Your task to perform on an android device: snooze an email in the gmail app Image 0: 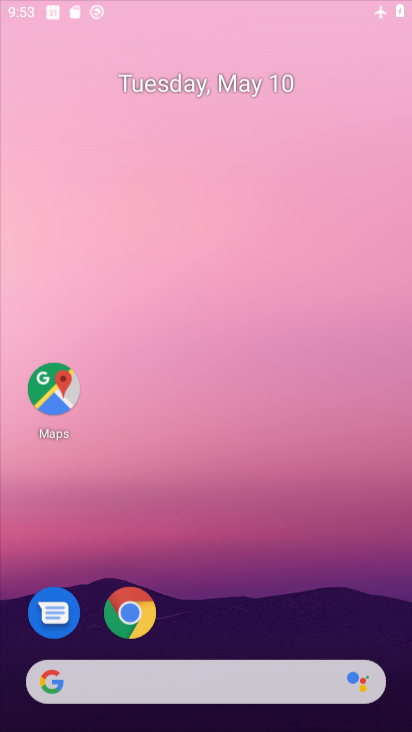
Step 0: click (246, 188)
Your task to perform on an android device: snooze an email in the gmail app Image 1: 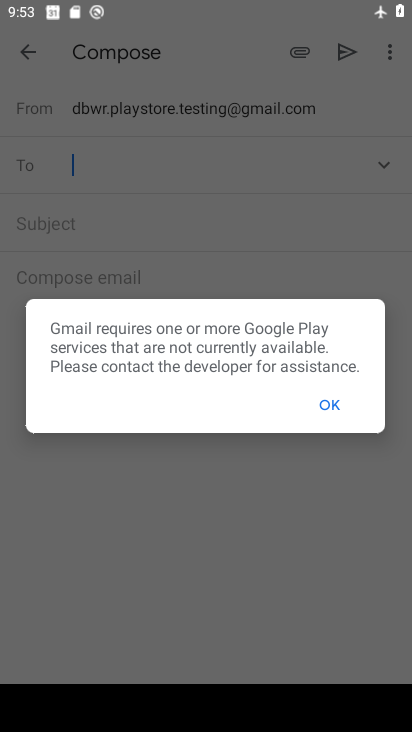
Step 1: press home button
Your task to perform on an android device: snooze an email in the gmail app Image 2: 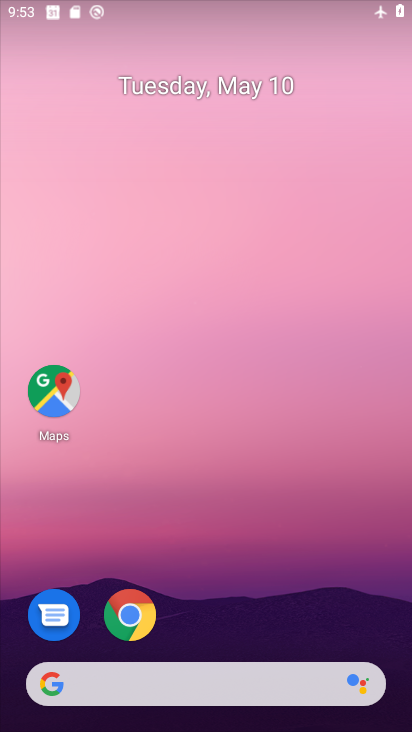
Step 2: drag from (163, 642) to (250, 131)
Your task to perform on an android device: snooze an email in the gmail app Image 3: 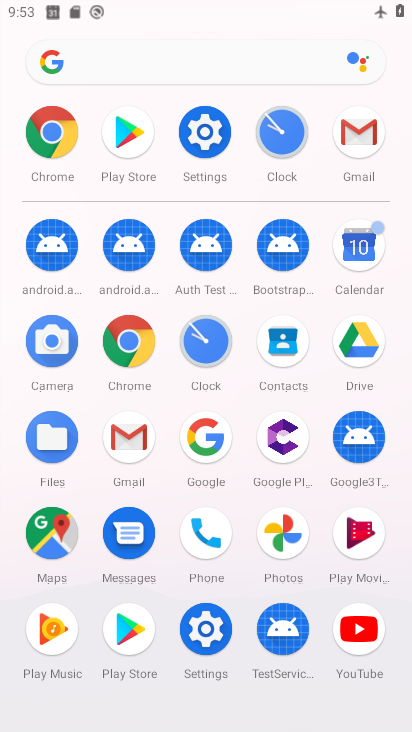
Step 3: click (128, 452)
Your task to perform on an android device: snooze an email in the gmail app Image 4: 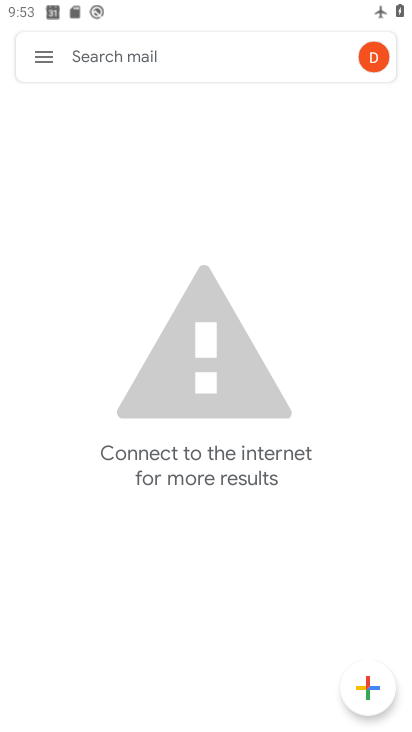
Step 4: click (37, 45)
Your task to perform on an android device: snooze an email in the gmail app Image 5: 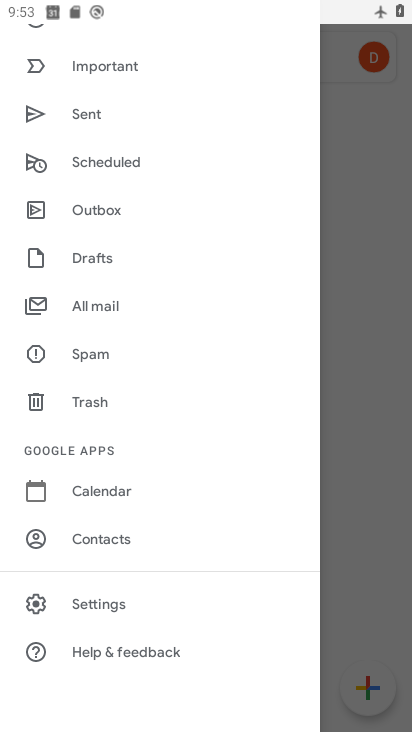
Step 5: task complete